Your task to perform on an android device: What is the capital of the United Kingdom? Image 0: 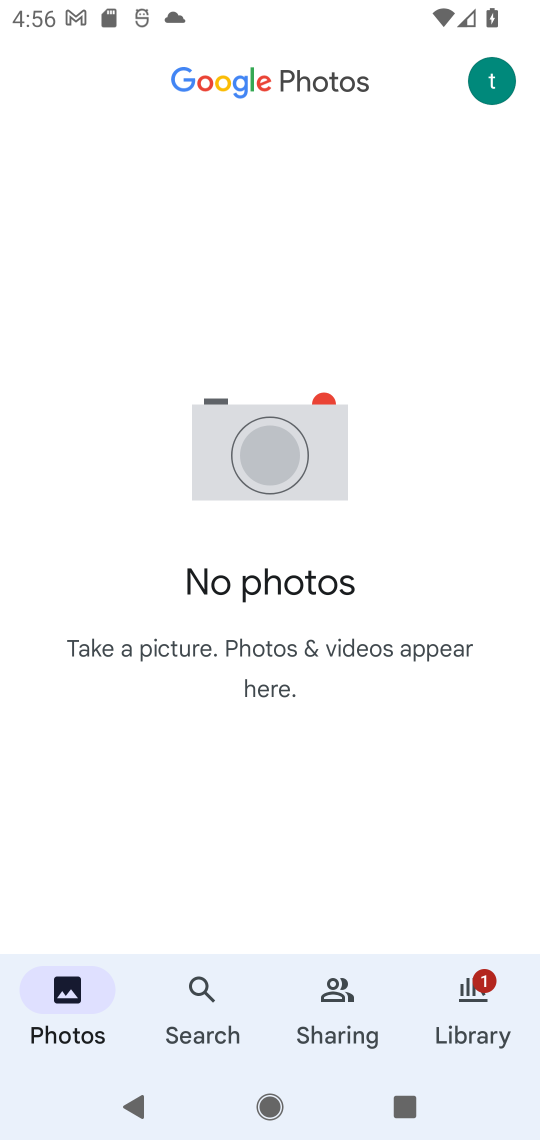
Step 0: press home button
Your task to perform on an android device: What is the capital of the United Kingdom? Image 1: 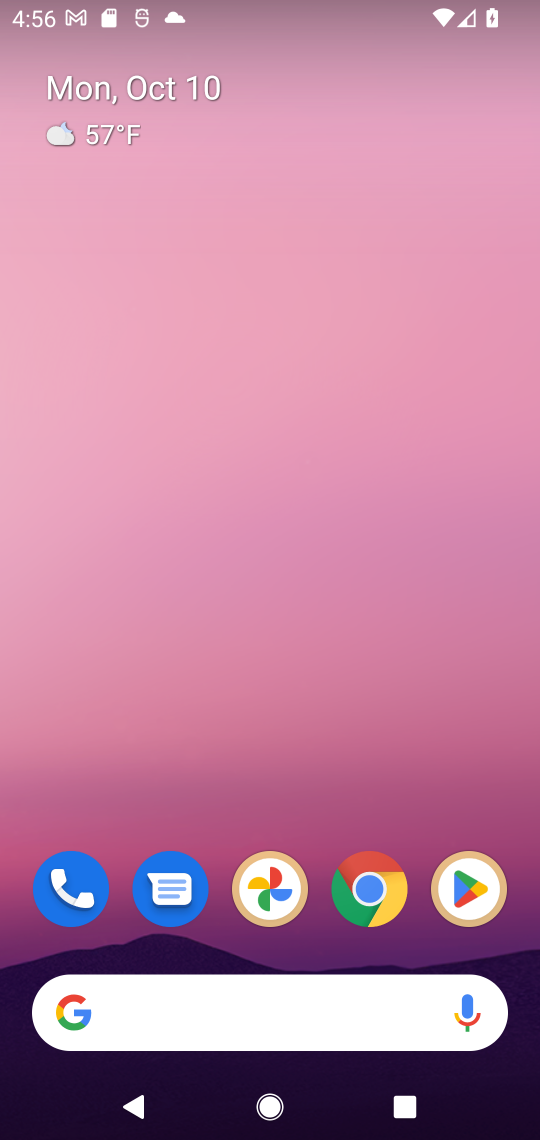
Step 1: click (369, 883)
Your task to perform on an android device: What is the capital of the United Kingdom? Image 2: 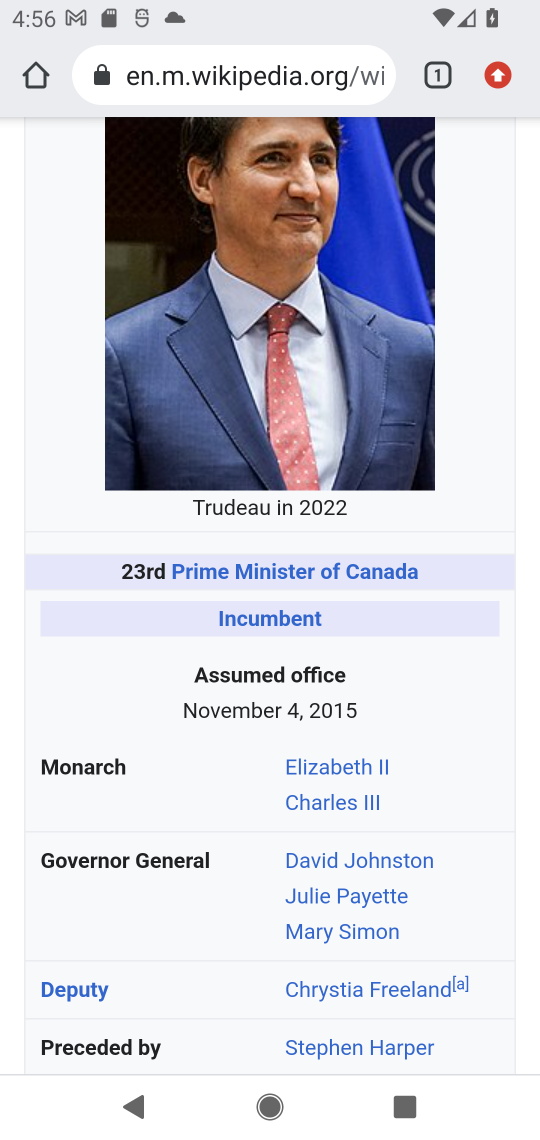
Step 2: click (241, 46)
Your task to perform on an android device: What is the capital of the United Kingdom? Image 3: 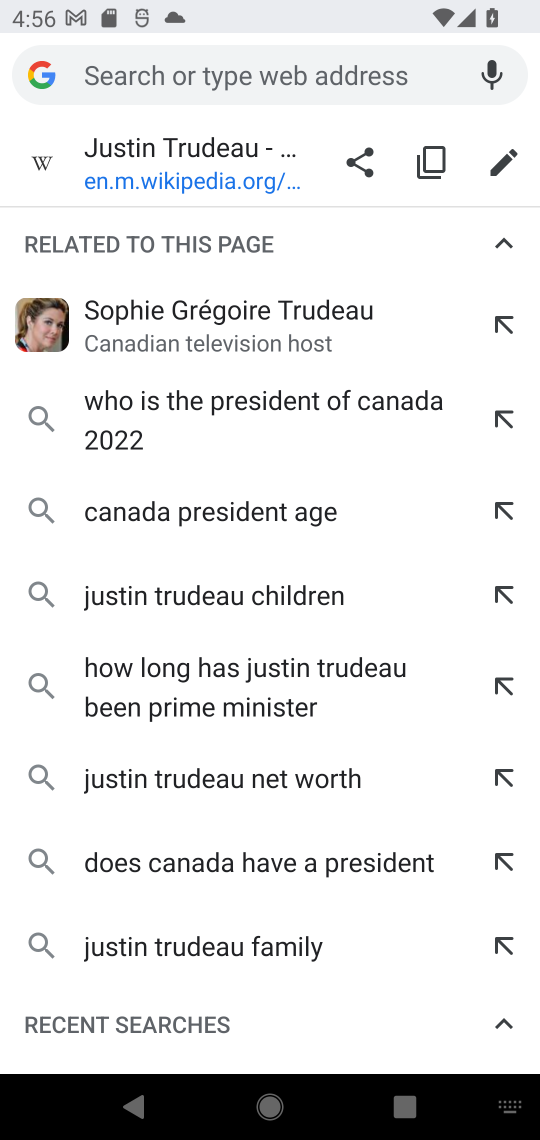
Step 3: type "capital of the United Kingdom"
Your task to perform on an android device: What is the capital of the United Kingdom? Image 4: 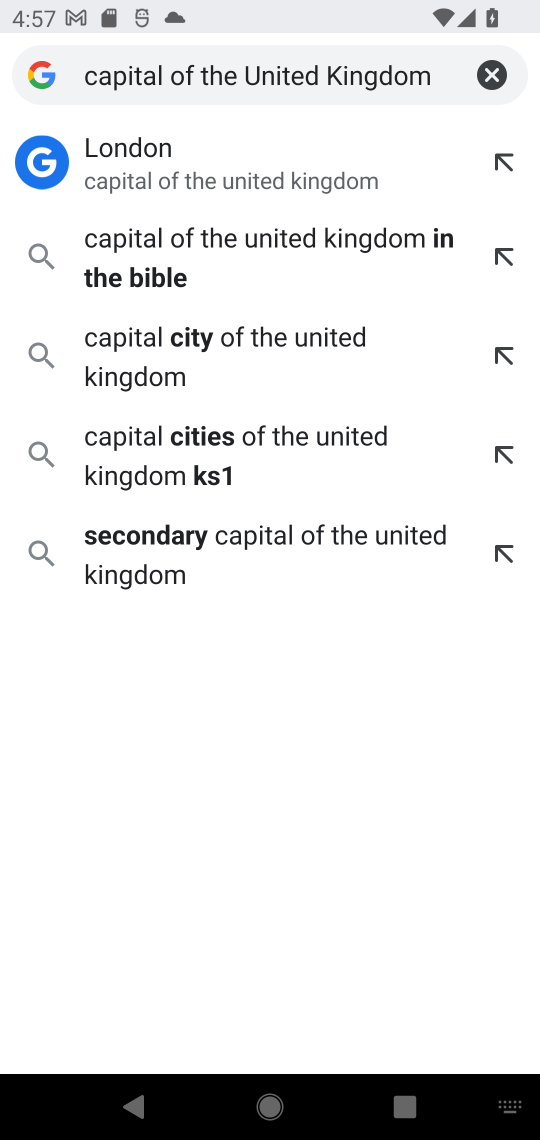
Step 4: click (200, 345)
Your task to perform on an android device: What is the capital of the United Kingdom? Image 5: 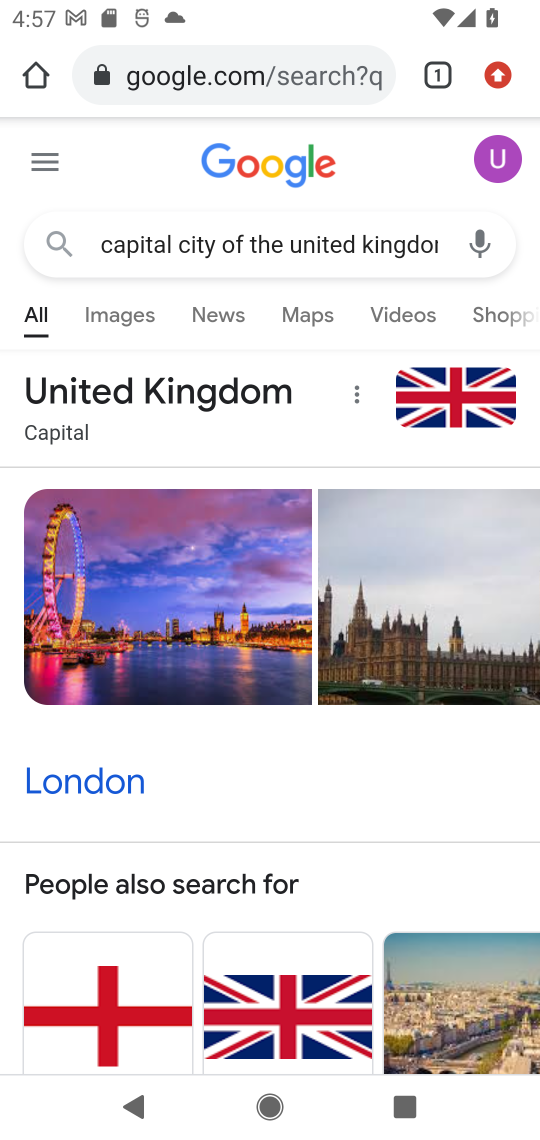
Step 5: task complete